Your task to perform on an android device: open the mobile data screen to see how much data has been used Image 0: 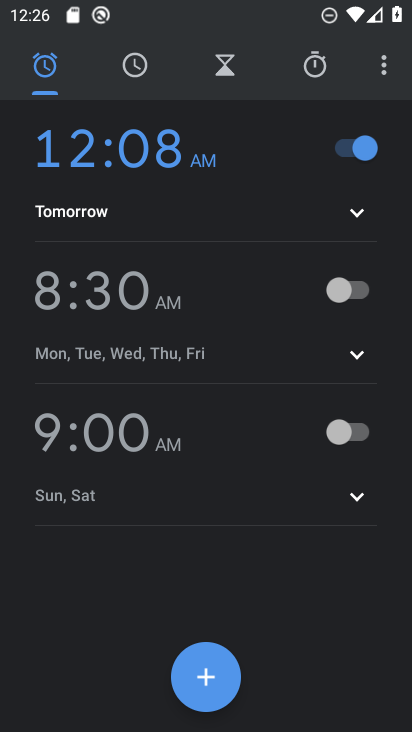
Step 0: press home button
Your task to perform on an android device: open the mobile data screen to see how much data has been used Image 1: 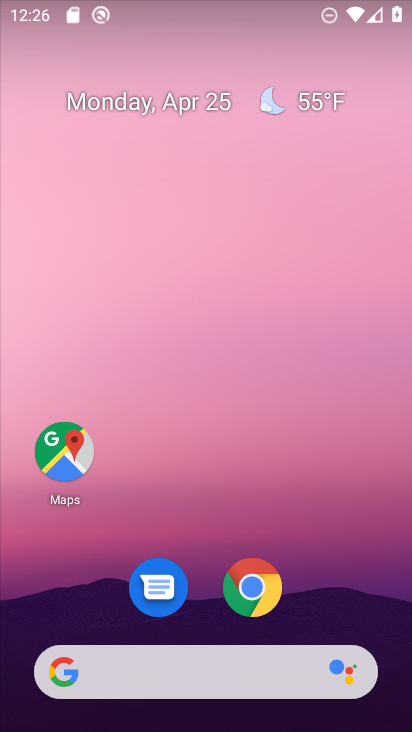
Step 1: drag from (381, 504) to (341, 67)
Your task to perform on an android device: open the mobile data screen to see how much data has been used Image 2: 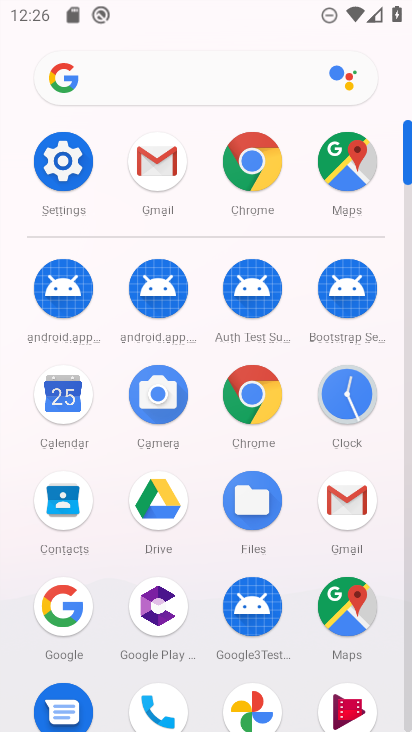
Step 2: click (73, 171)
Your task to perform on an android device: open the mobile data screen to see how much data has been used Image 3: 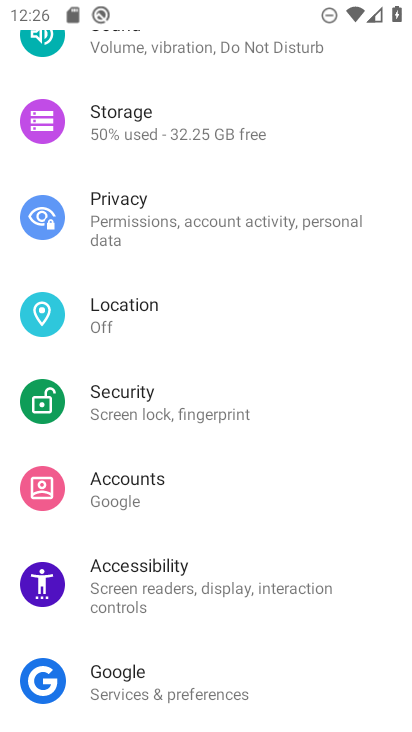
Step 3: drag from (174, 138) to (201, 614)
Your task to perform on an android device: open the mobile data screen to see how much data has been used Image 4: 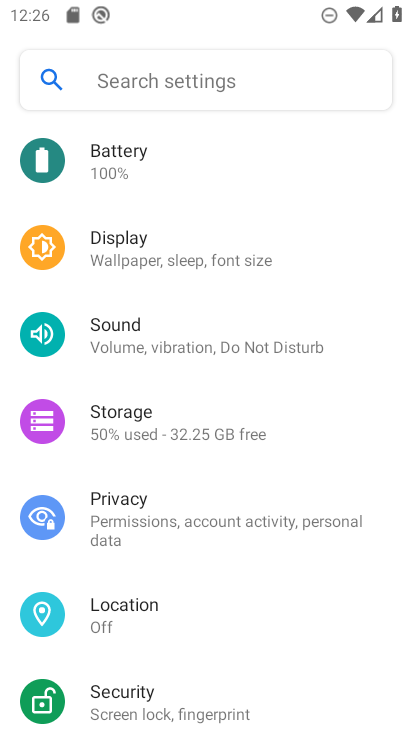
Step 4: drag from (225, 195) to (256, 596)
Your task to perform on an android device: open the mobile data screen to see how much data has been used Image 5: 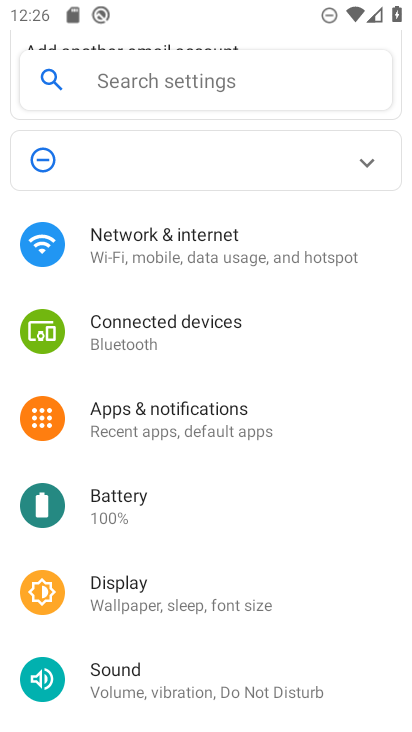
Step 5: drag from (216, 200) to (261, 594)
Your task to perform on an android device: open the mobile data screen to see how much data has been used Image 6: 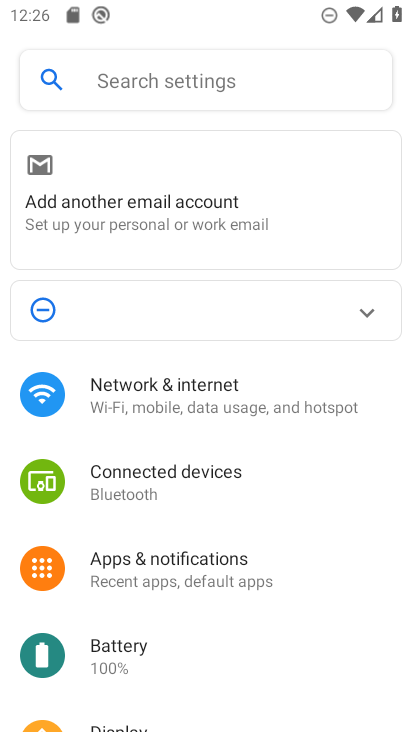
Step 6: click (176, 427)
Your task to perform on an android device: open the mobile data screen to see how much data has been used Image 7: 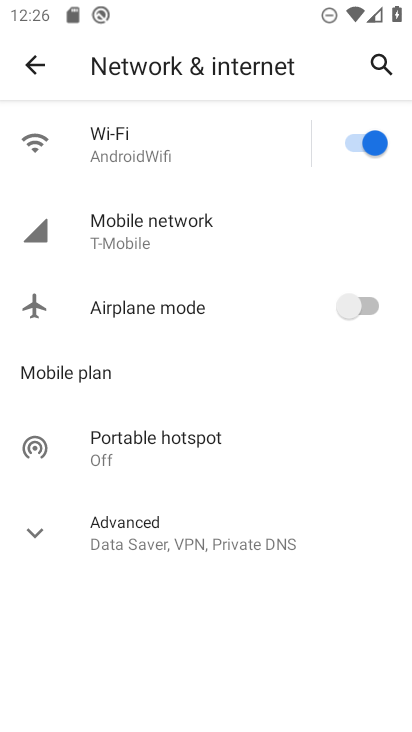
Step 7: click (192, 245)
Your task to perform on an android device: open the mobile data screen to see how much data has been used Image 8: 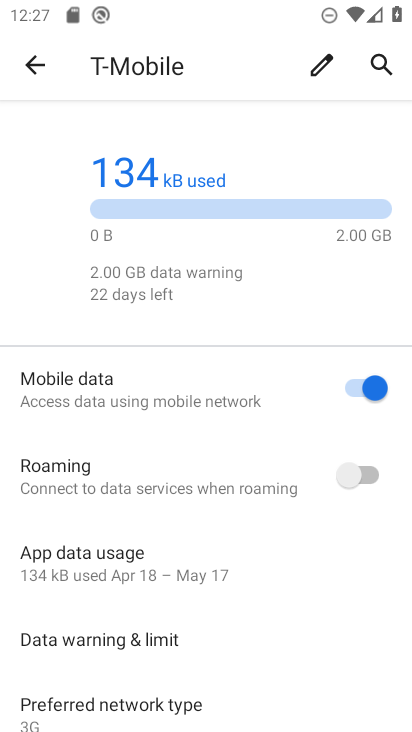
Step 8: click (274, 175)
Your task to perform on an android device: open the mobile data screen to see how much data has been used Image 9: 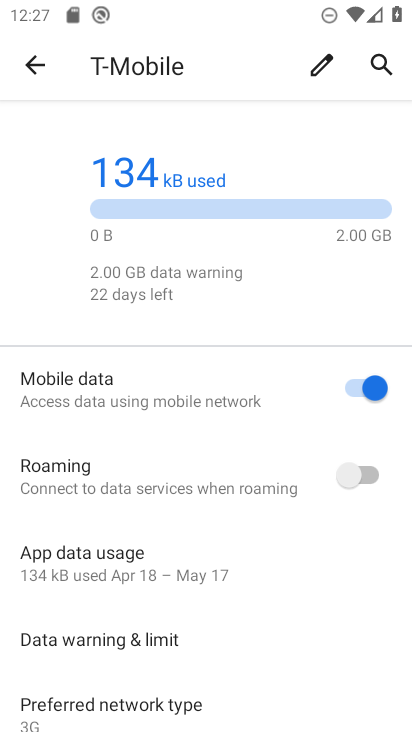
Step 9: click (244, 231)
Your task to perform on an android device: open the mobile data screen to see how much data has been used Image 10: 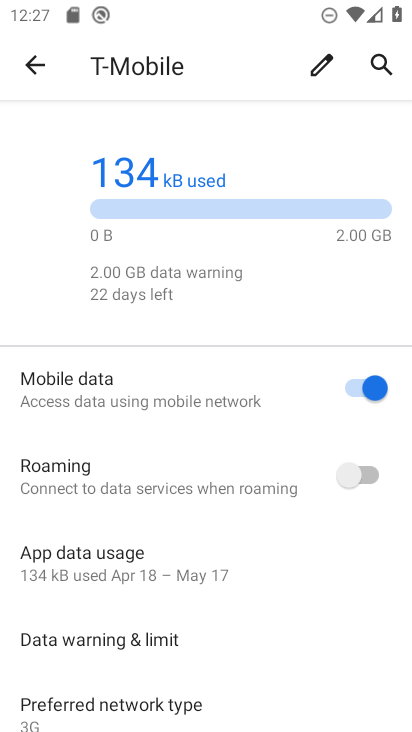
Step 10: task complete